Your task to perform on an android device: Open Google Image 0: 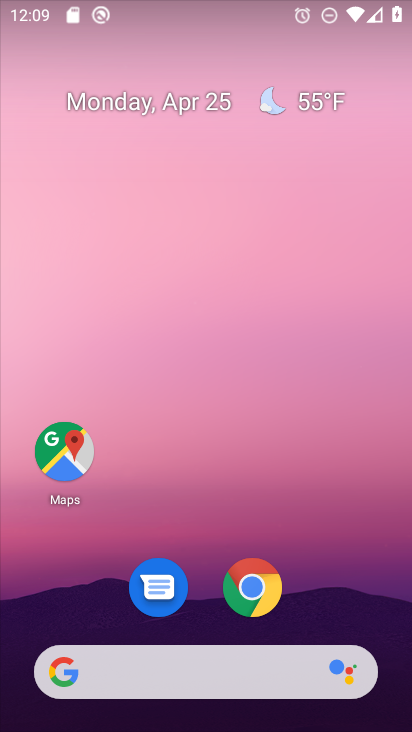
Step 0: drag from (280, 211) to (272, 0)
Your task to perform on an android device: Open Google Image 1: 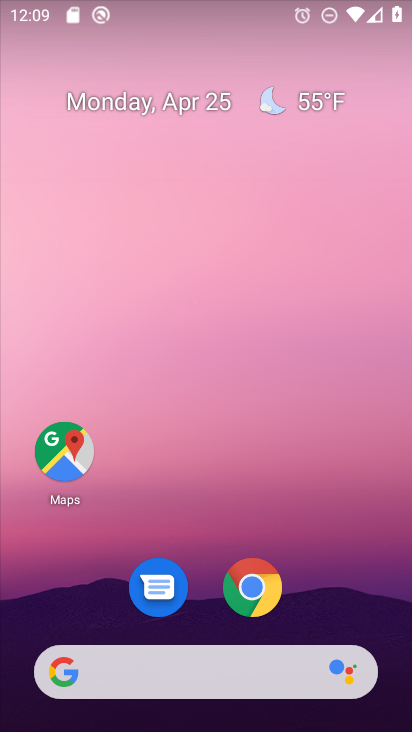
Step 1: drag from (354, 576) to (265, 112)
Your task to perform on an android device: Open Google Image 2: 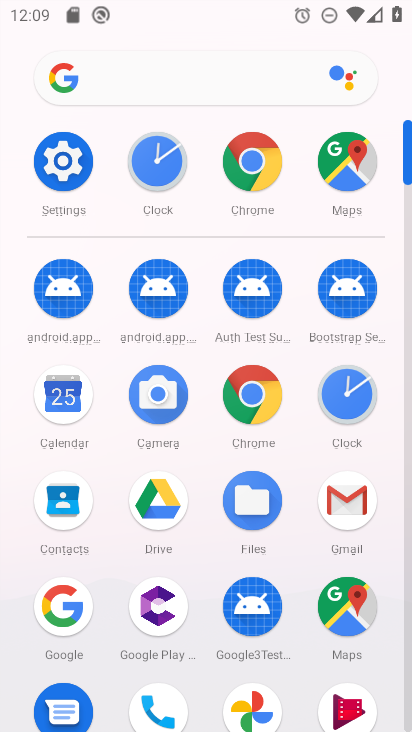
Step 2: click (63, 601)
Your task to perform on an android device: Open Google Image 3: 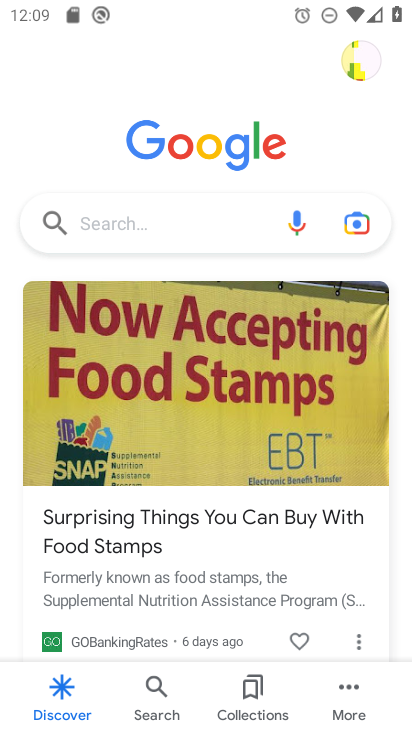
Step 3: task complete